Your task to perform on an android device: stop showing notifications on the lock screen Image 0: 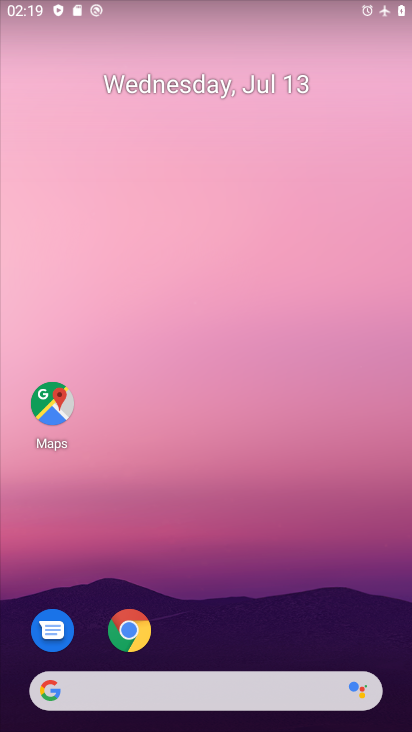
Step 0: drag from (224, 651) to (200, 224)
Your task to perform on an android device: stop showing notifications on the lock screen Image 1: 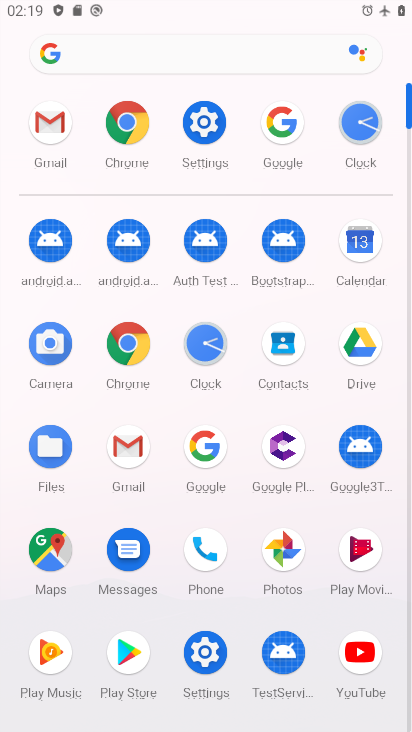
Step 1: click (224, 150)
Your task to perform on an android device: stop showing notifications on the lock screen Image 2: 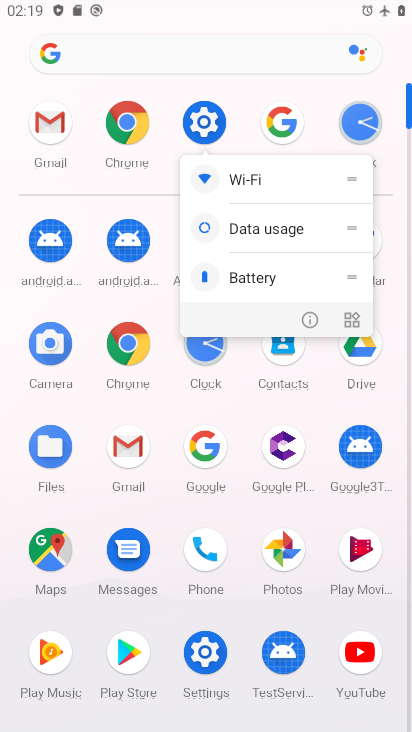
Step 2: click (217, 143)
Your task to perform on an android device: stop showing notifications on the lock screen Image 3: 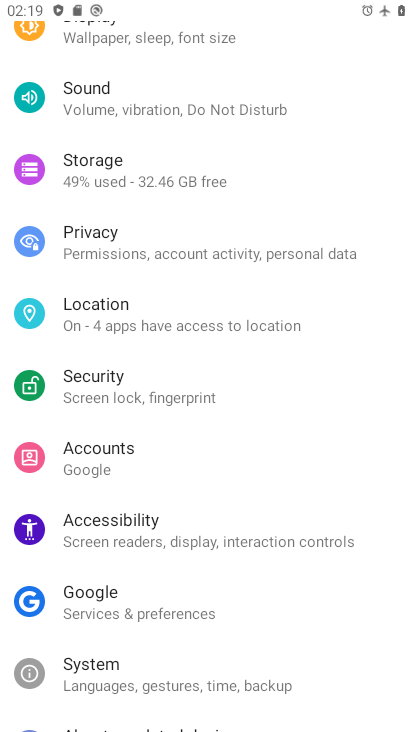
Step 3: drag from (231, 231) to (245, 318)
Your task to perform on an android device: stop showing notifications on the lock screen Image 4: 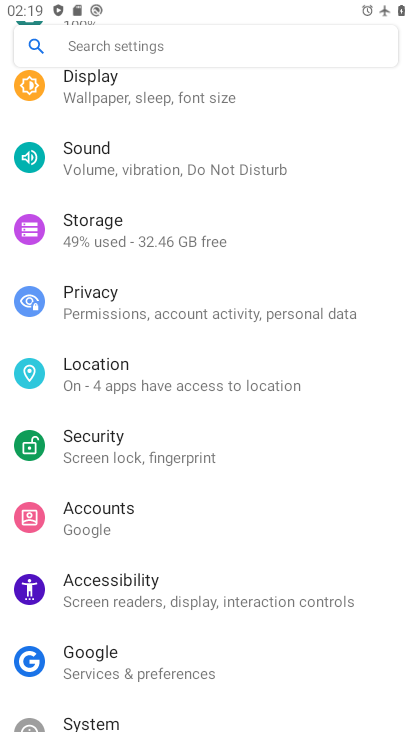
Step 4: drag from (202, 218) to (217, 427)
Your task to perform on an android device: stop showing notifications on the lock screen Image 5: 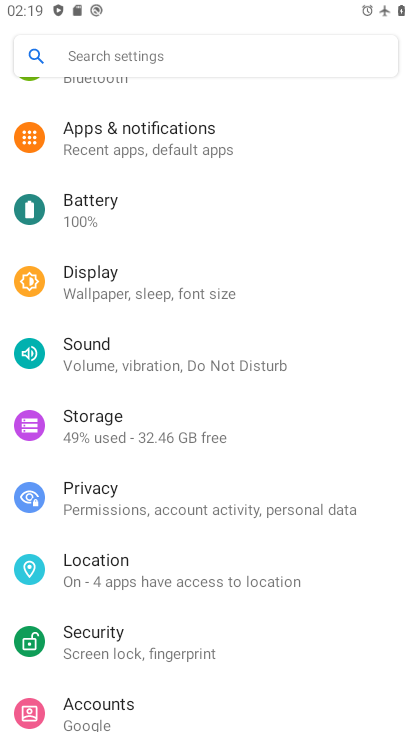
Step 5: click (184, 153)
Your task to perform on an android device: stop showing notifications on the lock screen Image 6: 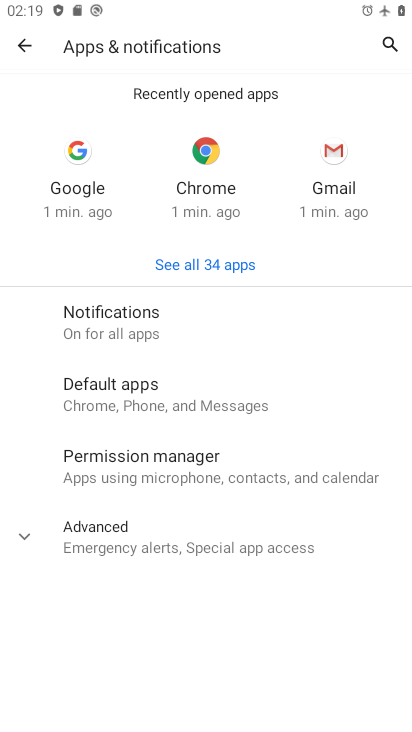
Step 6: click (184, 311)
Your task to perform on an android device: stop showing notifications on the lock screen Image 7: 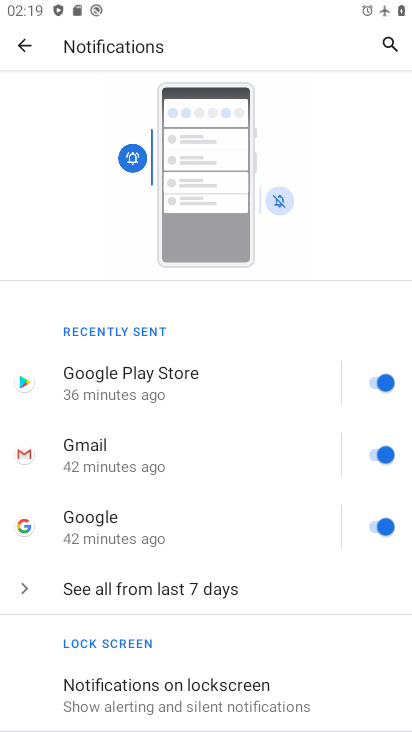
Step 7: click (281, 678)
Your task to perform on an android device: stop showing notifications on the lock screen Image 8: 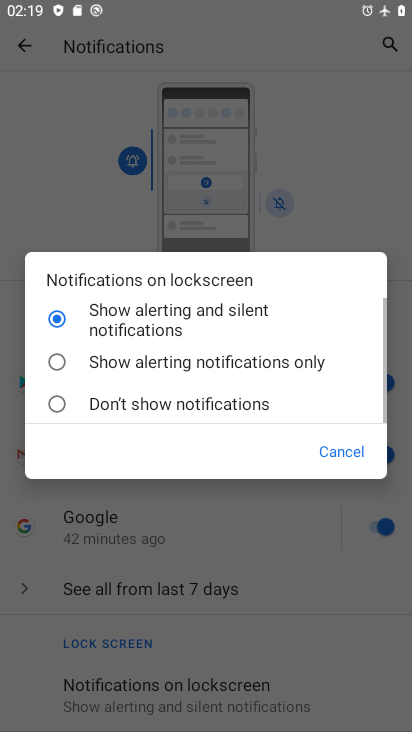
Step 8: click (147, 416)
Your task to perform on an android device: stop showing notifications on the lock screen Image 9: 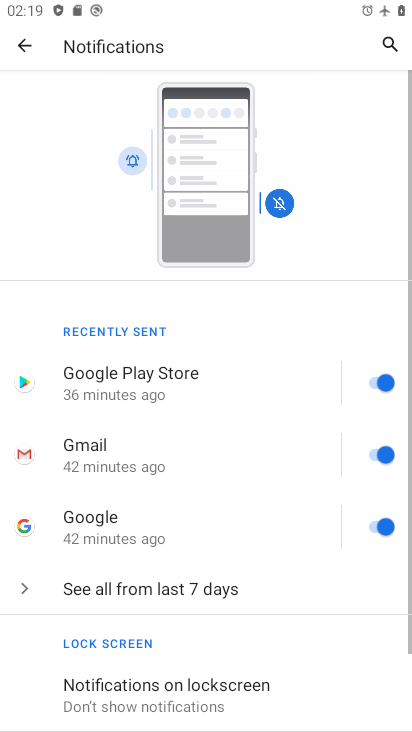
Step 9: task complete